Your task to perform on an android device: turn pop-ups on in chrome Image 0: 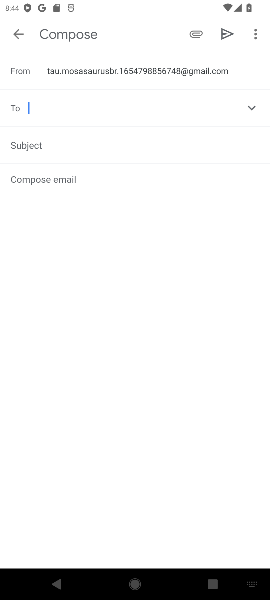
Step 0: press home button
Your task to perform on an android device: turn pop-ups on in chrome Image 1: 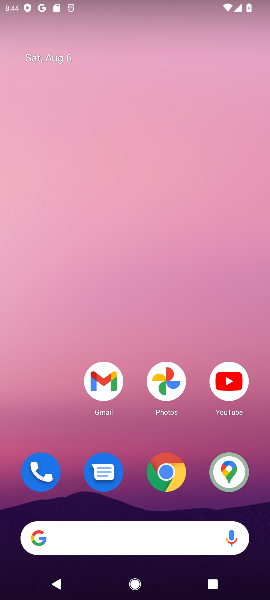
Step 1: click (157, 467)
Your task to perform on an android device: turn pop-ups on in chrome Image 2: 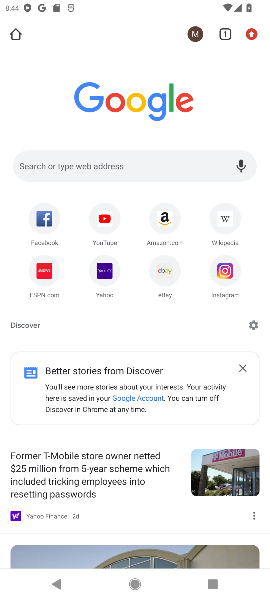
Step 2: click (249, 32)
Your task to perform on an android device: turn pop-ups on in chrome Image 3: 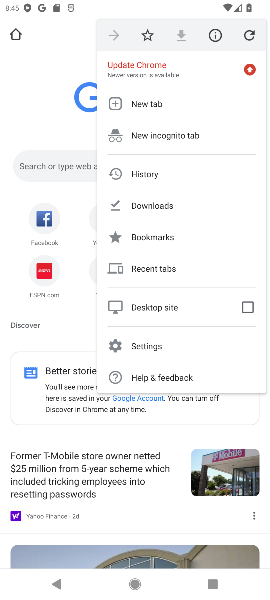
Step 3: click (151, 341)
Your task to perform on an android device: turn pop-ups on in chrome Image 4: 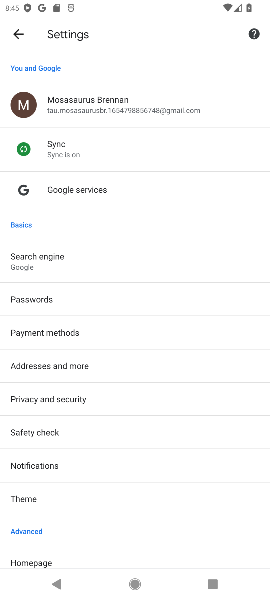
Step 4: drag from (180, 545) to (193, 268)
Your task to perform on an android device: turn pop-ups on in chrome Image 5: 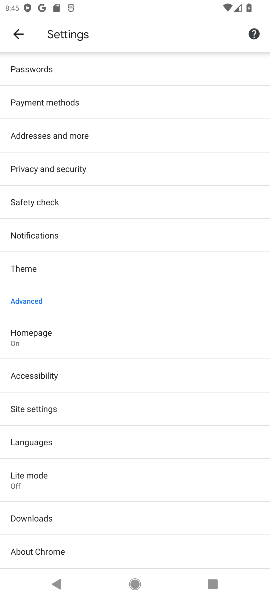
Step 5: click (38, 404)
Your task to perform on an android device: turn pop-ups on in chrome Image 6: 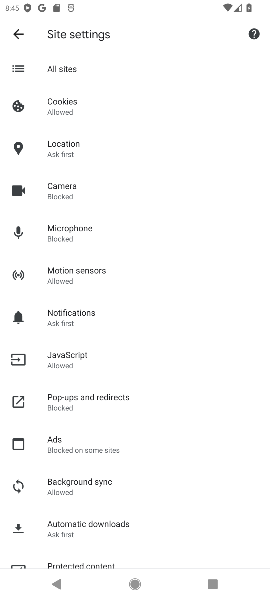
Step 6: click (58, 362)
Your task to perform on an android device: turn pop-ups on in chrome Image 7: 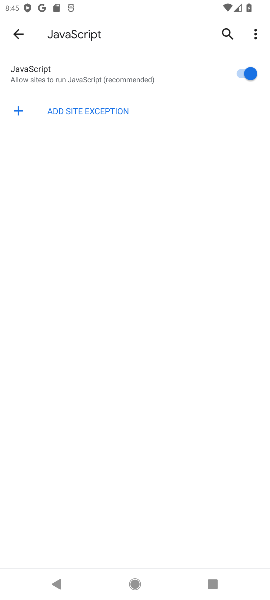
Step 7: click (16, 32)
Your task to perform on an android device: turn pop-ups on in chrome Image 8: 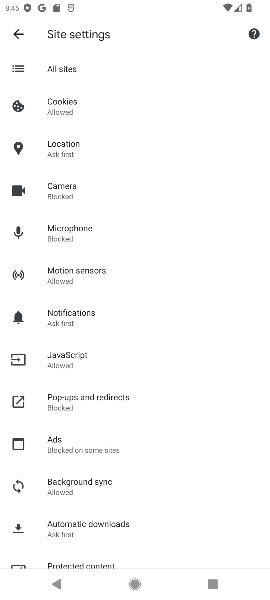
Step 8: click (75, 400)
Your task to perform on an android device: turn pop-ups on in chrome Image 9: 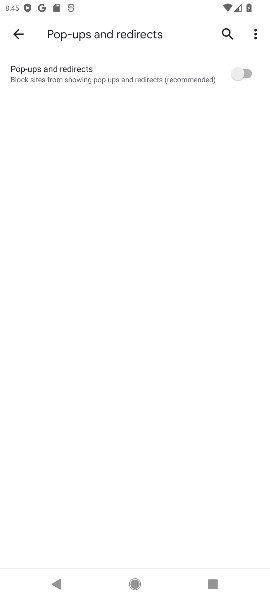
Step 9: click (251, 76)
Your task to perform on an android device: turn pop-ups on in chrome Image 10: 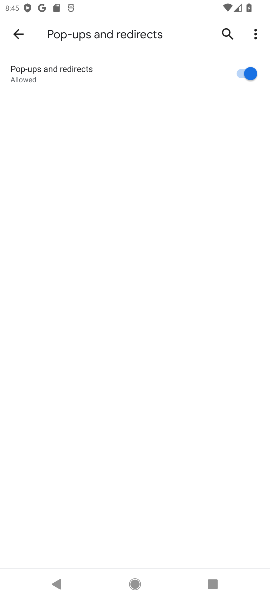
Step 10: task complete